Your task to perform on an android device: Set the phone to "Do not disturb". Image 0: 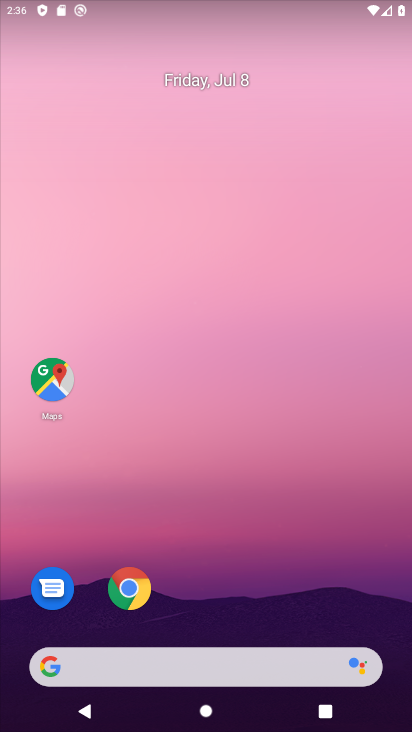
Step 0: drag from (179, 10) to (154, 60)
Your task to perform on an android device: Set the phone to "Do not disturb". Image 1: 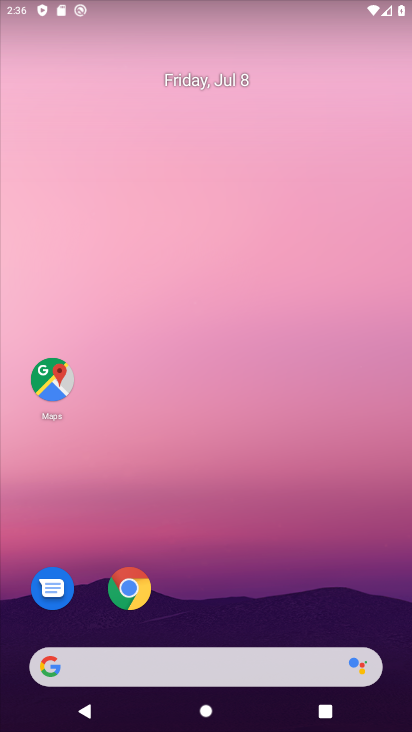
Step 1: drag from (180, 486) to (122, 12)
Your task to perform on an android device: Set the phone to "Do not disturb". Image 2: 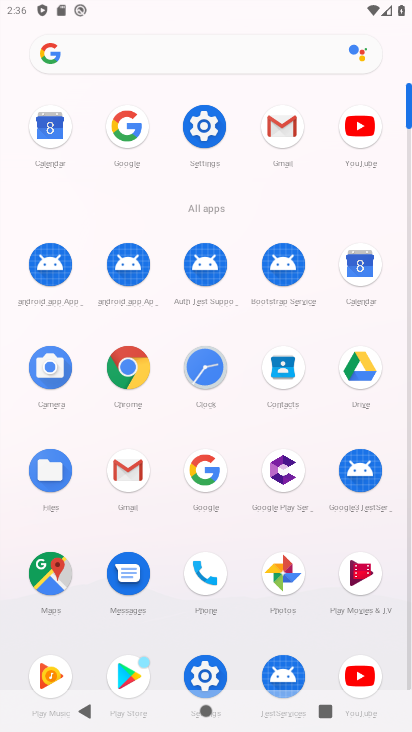
Step 2: click (200, 127)
Your task to perform on an android device: Set the phone to "Do not disturb". Image 3: 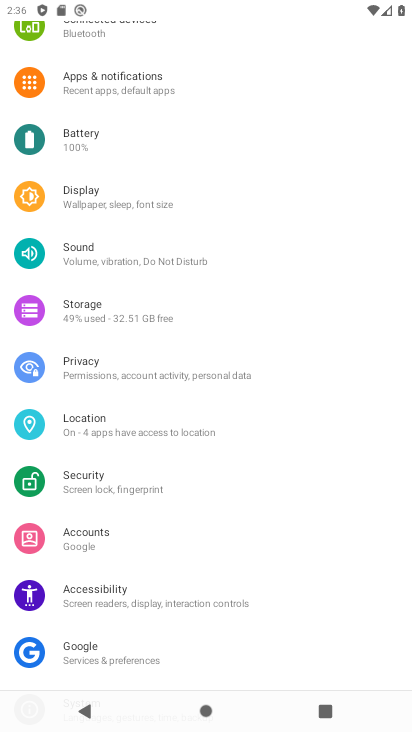
Step 3: click (97, 267)
Your task to perform on an android device: Set the phone to "Do not disturb". Image 4: 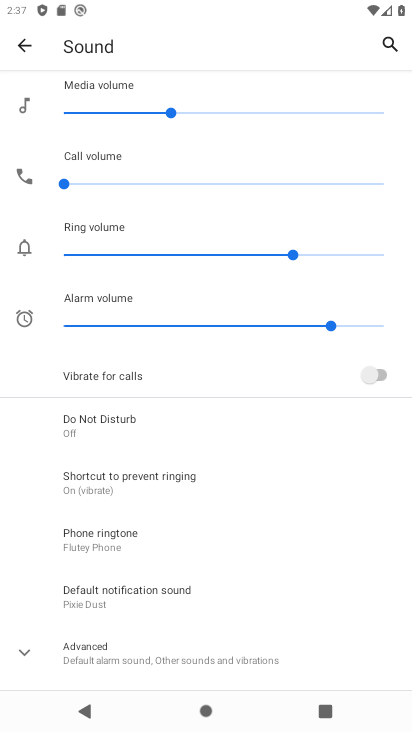
Step 4: click (87, 428)
Your task to perform on an android device: Set the phone to "Do not disturb". Image 5: 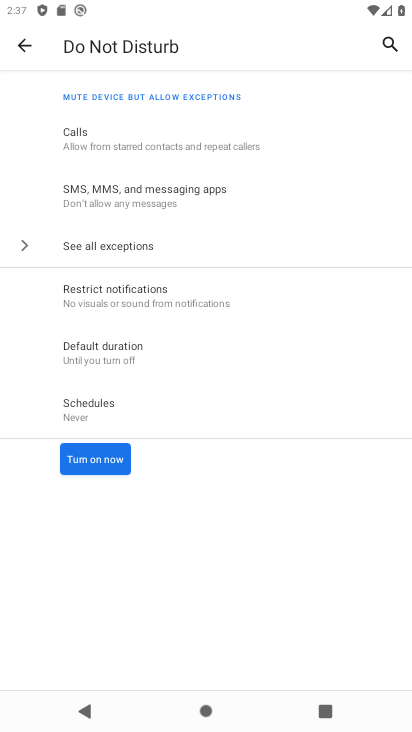
Step 5: click (98, 454)
Your task to perform on an android device: Set the phone to "Do not disturb". Image 6: 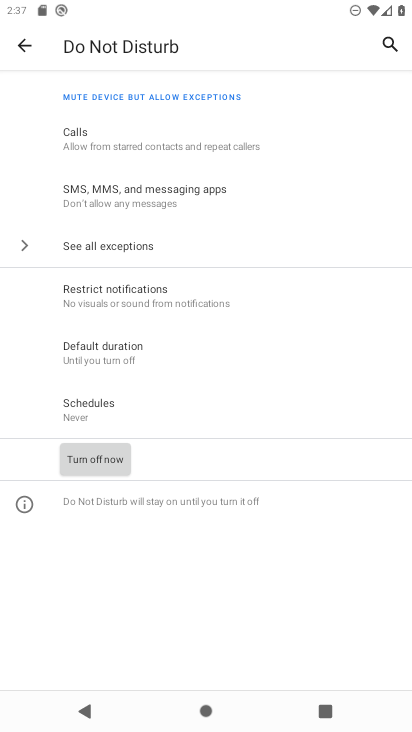
Step 6: task complete